Your task to perform on an android device: Search for Mexican restaurants on Maps Image 0: 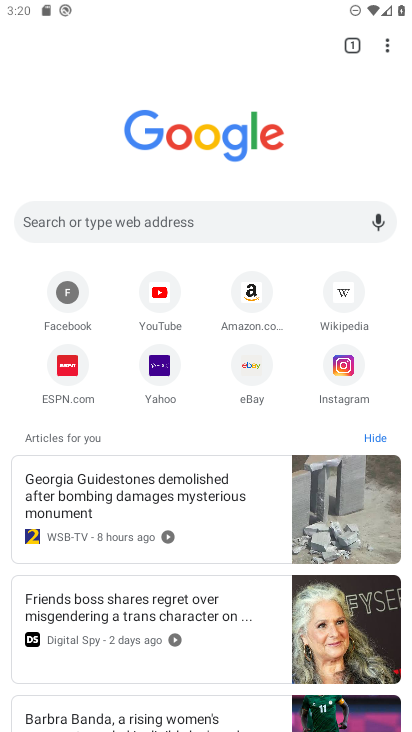
Step 0: press home button
Your task to perform on an android device: Search for Mexican restaurants on Maps Image 1: 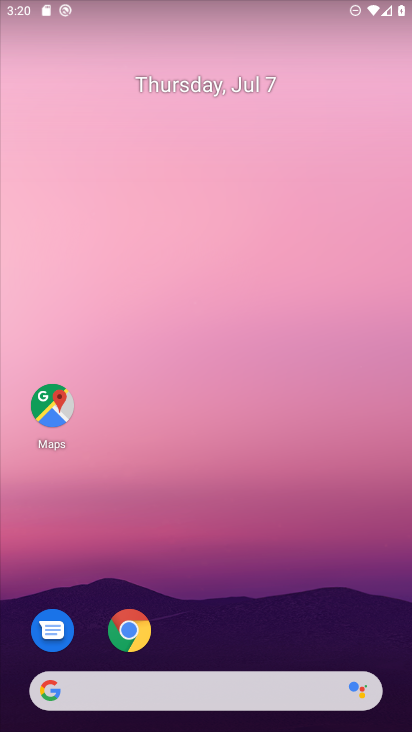
Step 1: drag from (362, 621) to (351, 160)
Your task to perform on an android device: Search for Mexican restaurants on Maps Image 2: 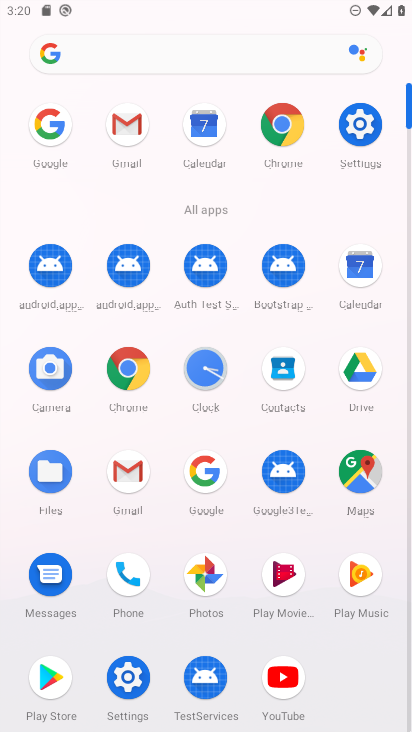
Step 2: click (359, 459)
Your task to perform on an android device: Search for Mexican restaurants on Maps Image 3: 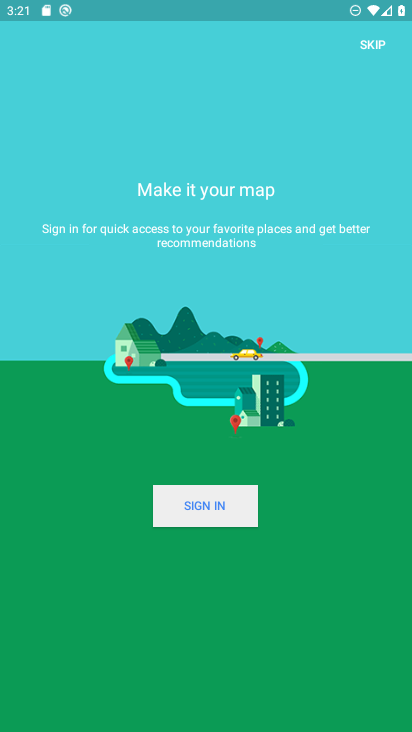
Step 3: click (371, 42)
Your task to perform on an android device: Search for Mexican restaurants on Maps Image 4: 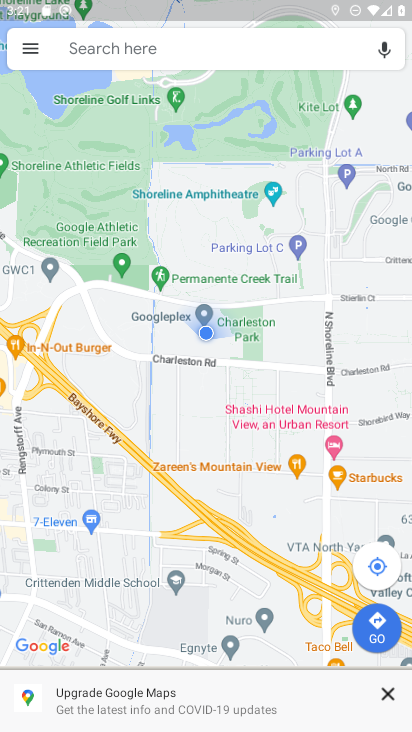
Step 4: click (214, 55)
Your task to perform on an android device: Search for Mexican restaurants on Maps Image 5: 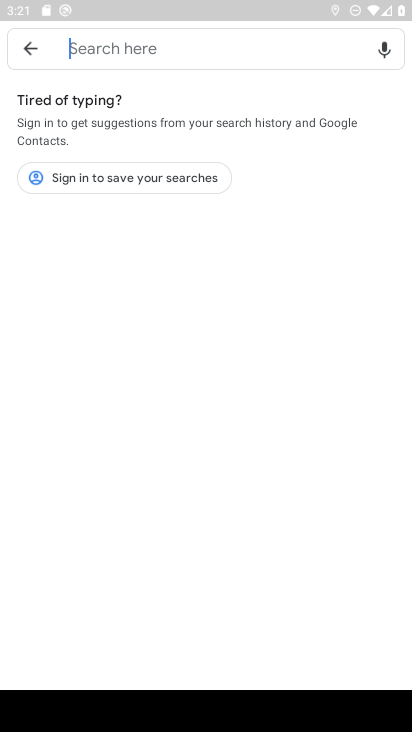
Step 5: type "mexican restaurants"
Your task to perform on an android device: Search for Mexican restaurants on Maps Image 6: 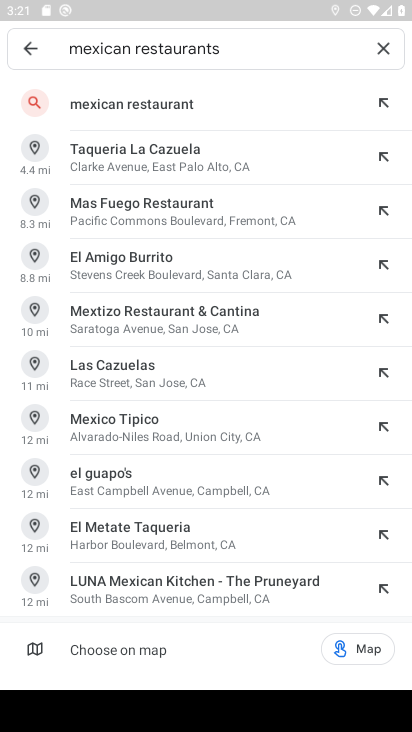
Step 6: click (274, 115)
Your task to perform on an android device: Search for Mexican restaurants on Maps Image 7: 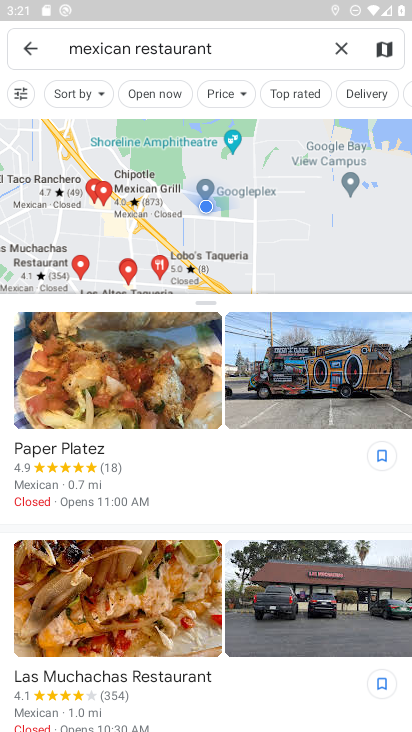
Step 7: task complete